Your task to perform on an android device: Play the last video I watched on Youtube Image 0: 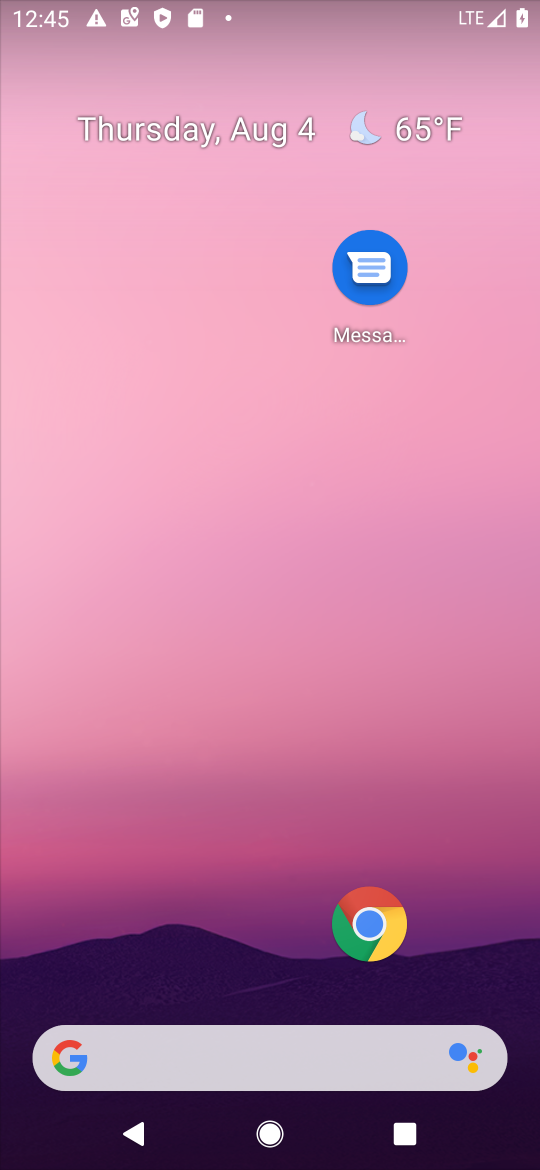
Step 0: drag from (48, 1102) to (248, 22)
Your task to perform on an android device: Play the last video I watched on Youtube Image 1: 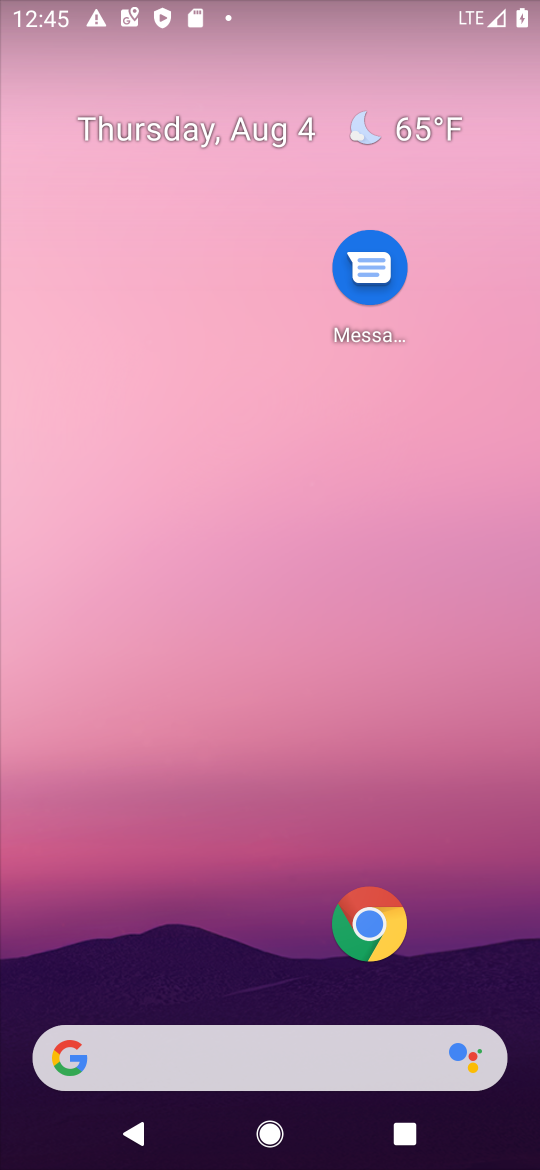
Step 1: drag from (76, 1093) to (287, 72)
Your task to perform on an android device: Play the last video I watched on Youtube Image 2: 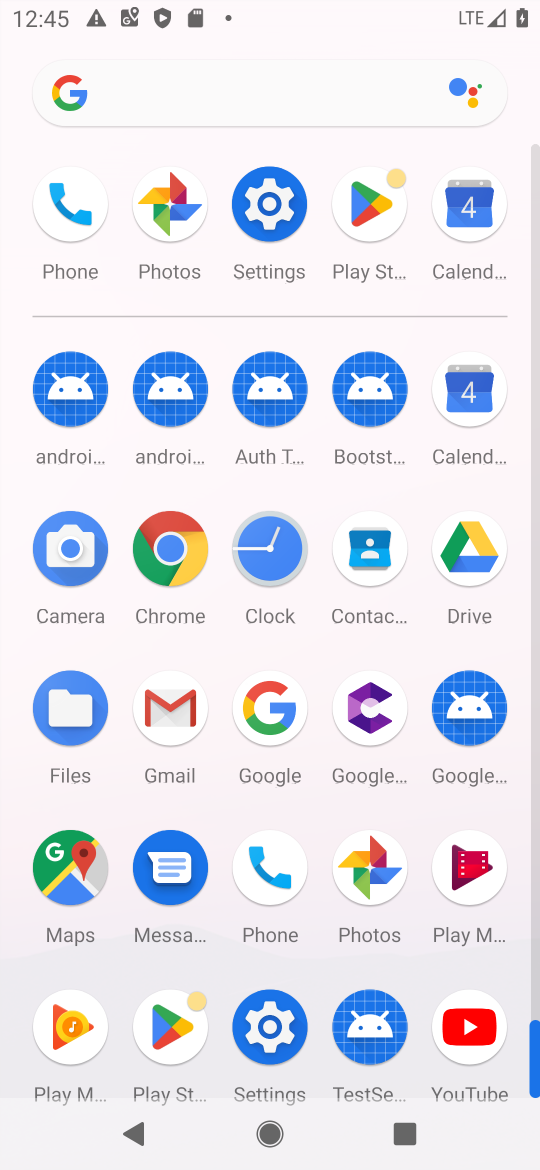
Step 2: click (464, 1032)
Your task to perform on an android device: Play the last video I watched on Youtube Image 3: 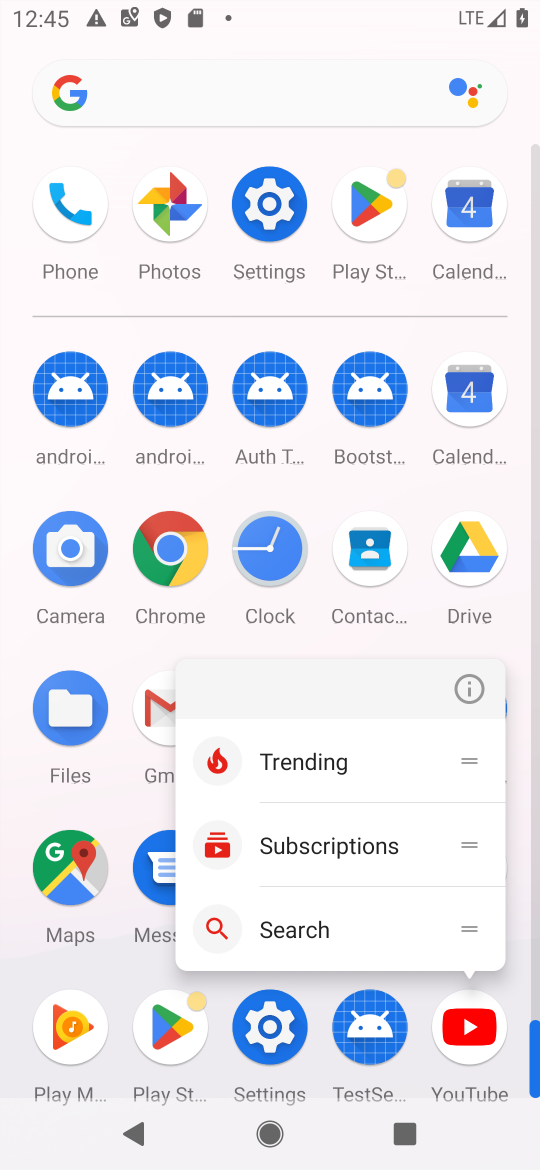
Step 3: click (454, 1023)
Your task to perform on an android device: Play the last video I watched on Youtube Image 4: 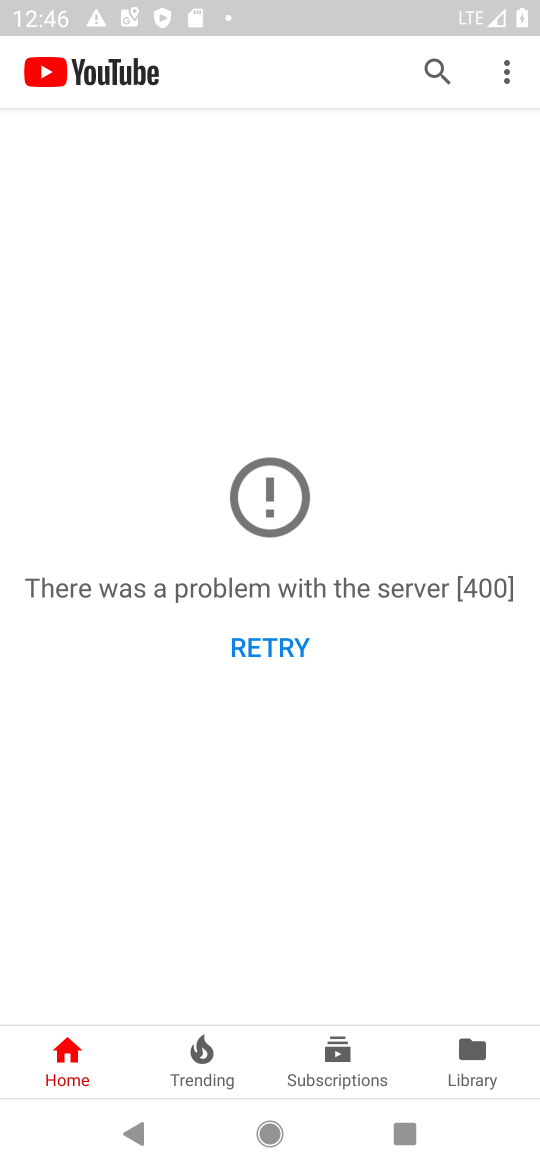
Step 4: click (515, 71)
Your task to perform on an android device: Play the last video I watched on Youtube Image 5: 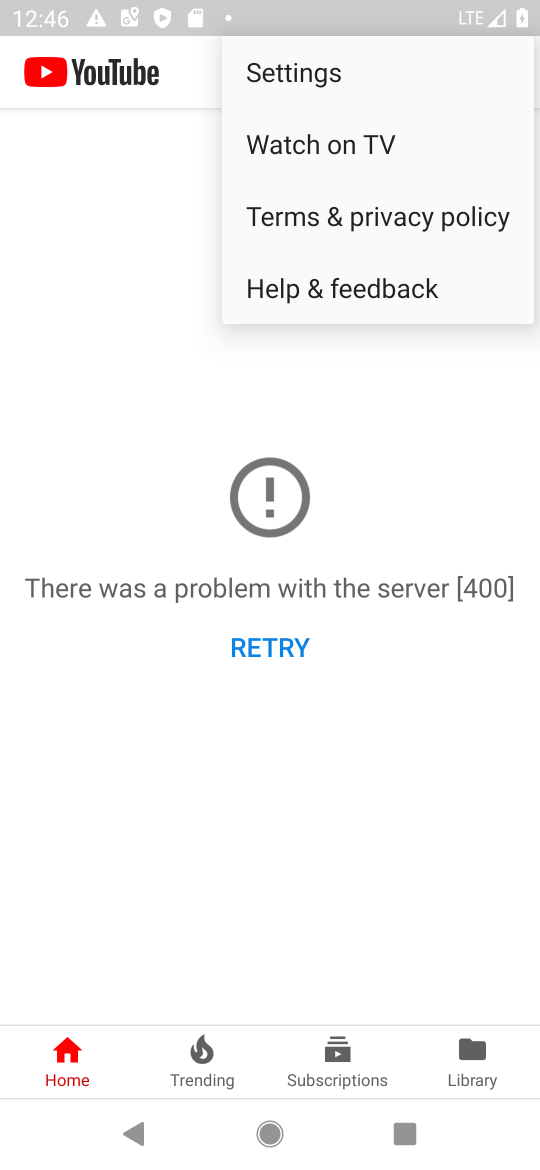
Step 5: click (476, 1031)
Your task to perform on an android device: Play the last video I watched on Youtube Image 6: 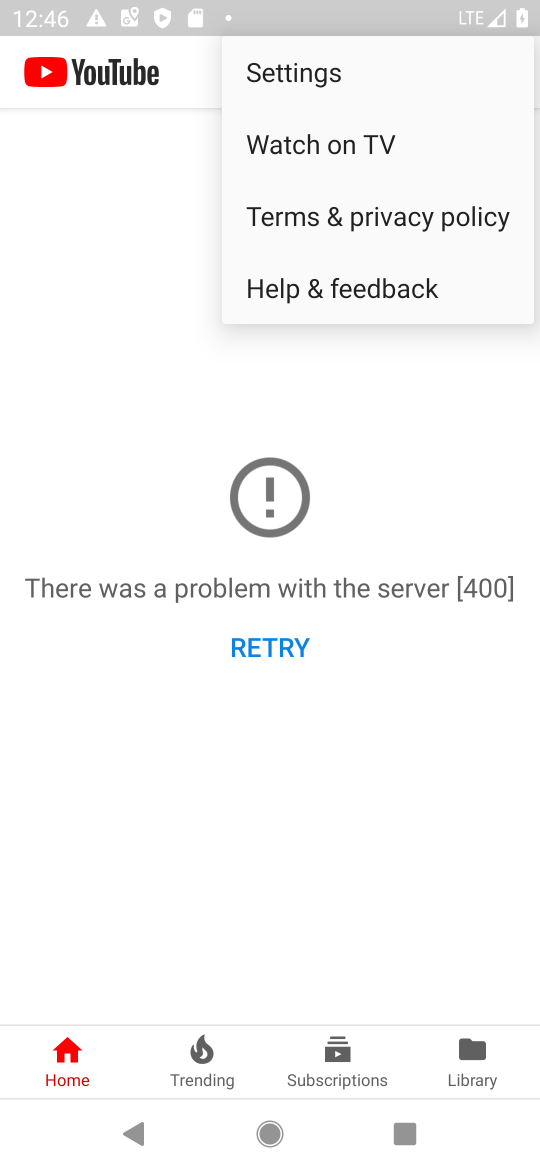
Step 6: click (469, 1050)
Your task to perform on an android device: Play the last video I watched on Youtube Image 7: 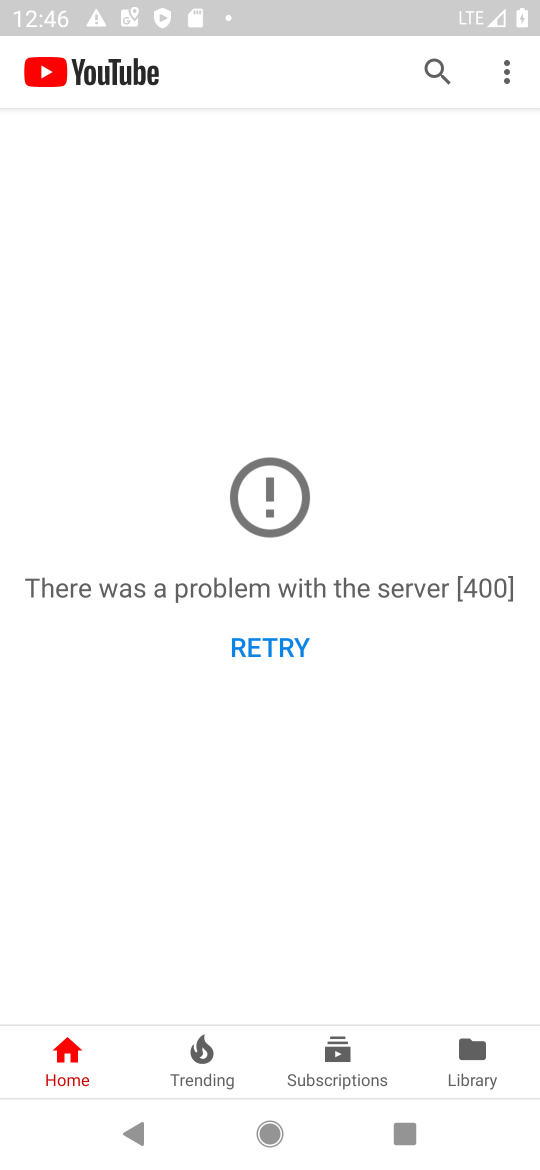
Step 7: click (458, 1044)
Your task to perform on an android device: Play the last video I watched on Youtube Image 8: 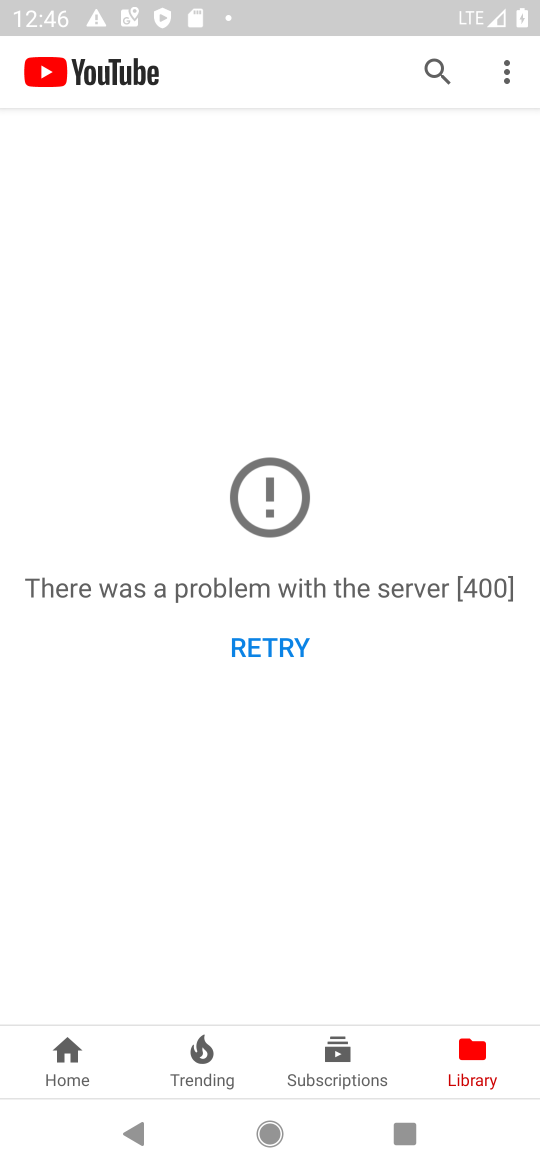
Step 8: task complete